Your task to perform on an android device: Go to location settings Image 0: 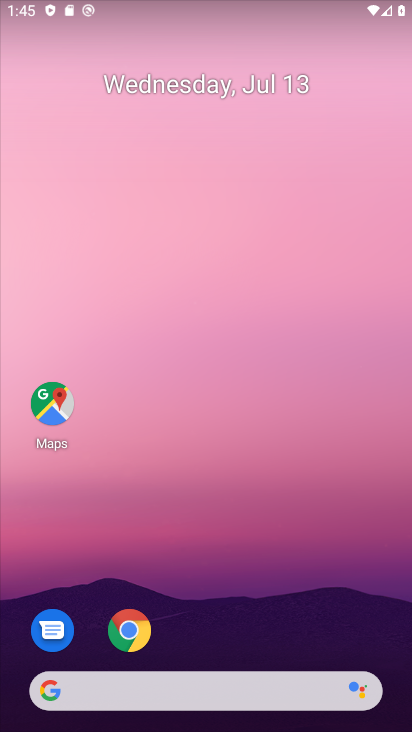
Step 0: drag from (213, 600) to (154, 146)
Your task to perform on an android device: Go to location settings Image 1: 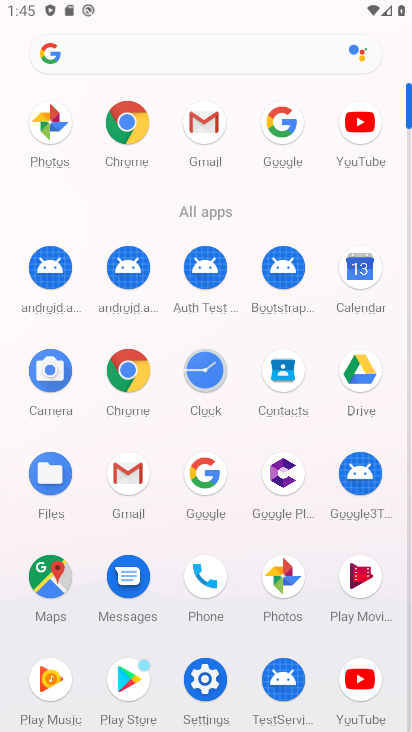
Step 1: click (206, 676)
Your task to perform on an android device: Go to location settings Image 2: 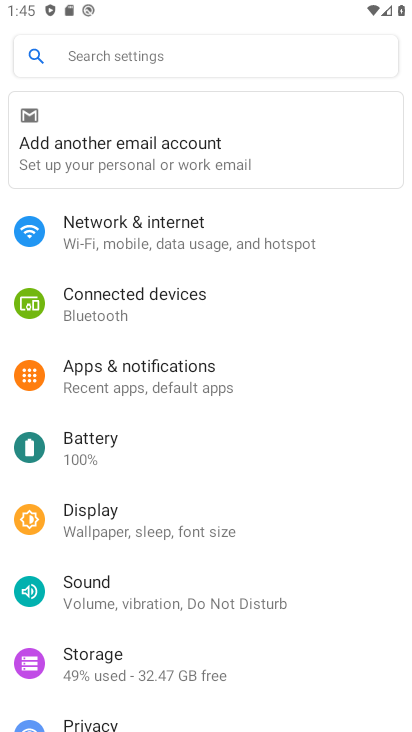
Step 2: drag from (184, 653) to (162, 166)
Your task to perform on an android device: Go to location settings Image 3: 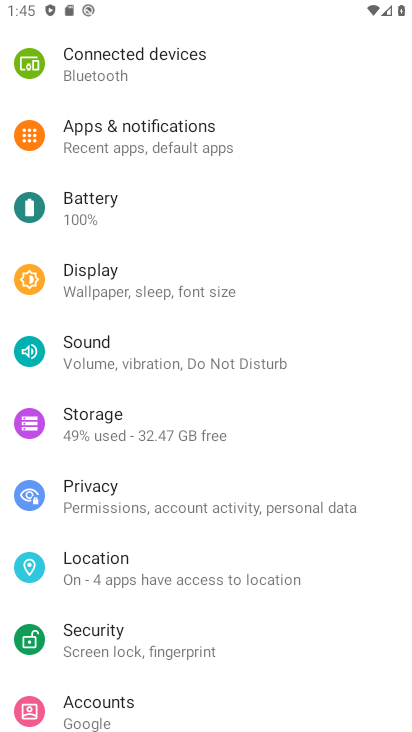
Step 3: click (147, 576)
Your task to perform on an android device: Go to location settings Image 4: 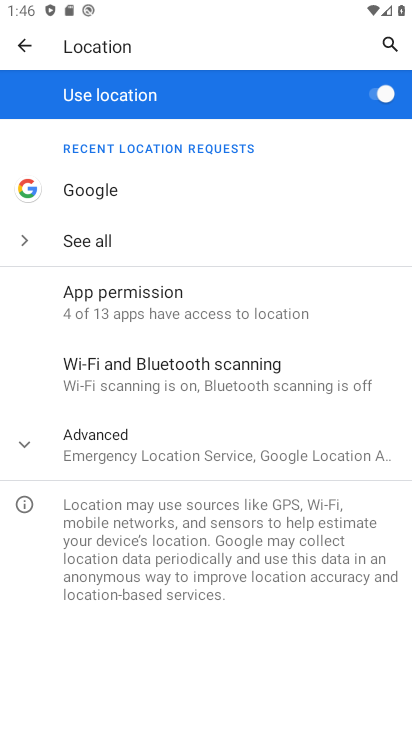
Step 4: task complete